Your task to perform on an android device: Go to privacy settings Image 0: 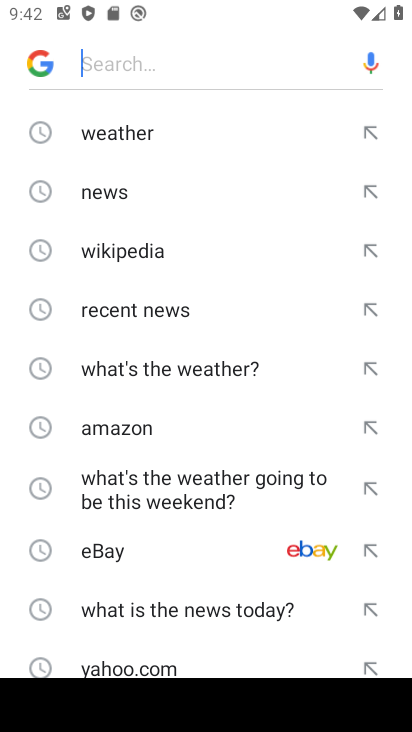
Step 0: press home button
Your task to perform on an android device: Go to privacy settings Image 1: 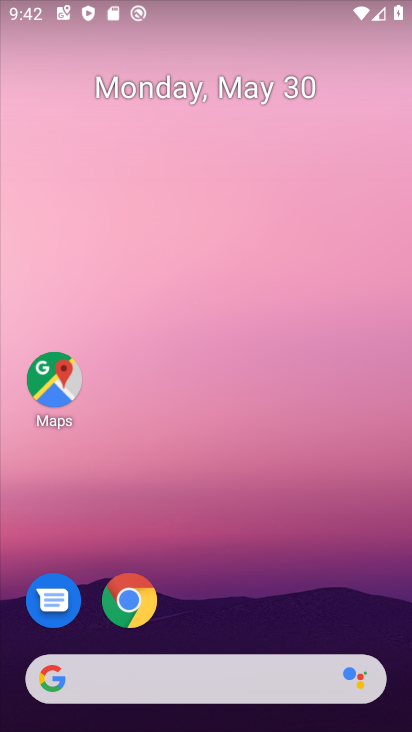
Step 1: drag from (272, 611) to (231, 87)
Your task to perform on an android device: Go to privacy settings Image 2: 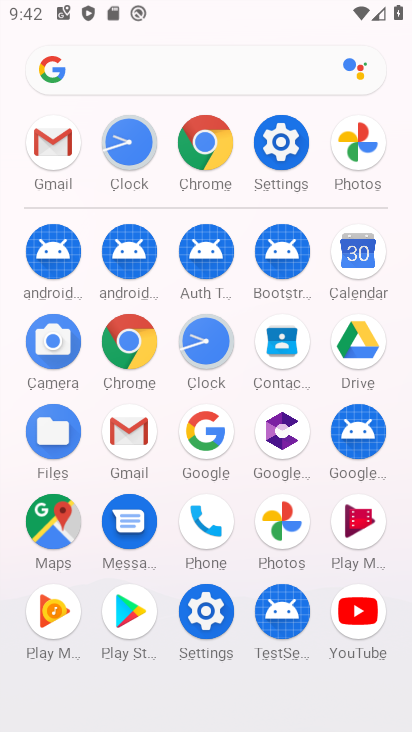
Step 2: click (279, 149)
Your task to perform on an android device: Go to privacy settings Image 3: 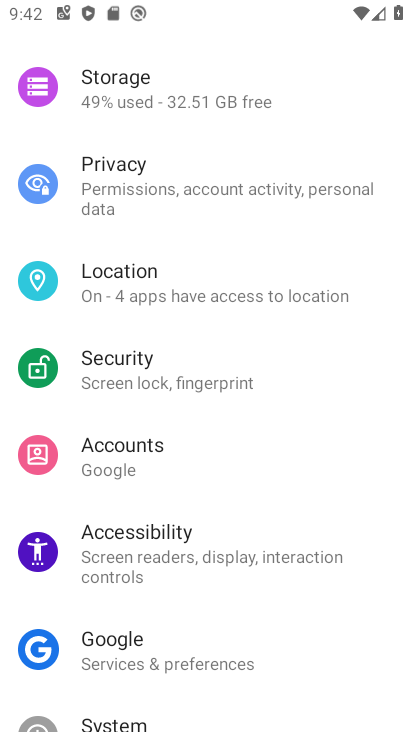
Step 3: click (279, 149)
Your task to perform on an android device: Go to privacy settings Image 4: 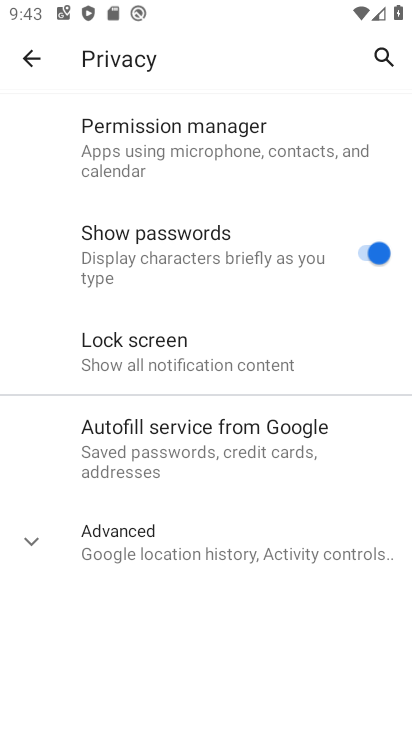
Step 4: task complete